Your task to perform on an android device: What's the weather going to be this weekend? Image 0: 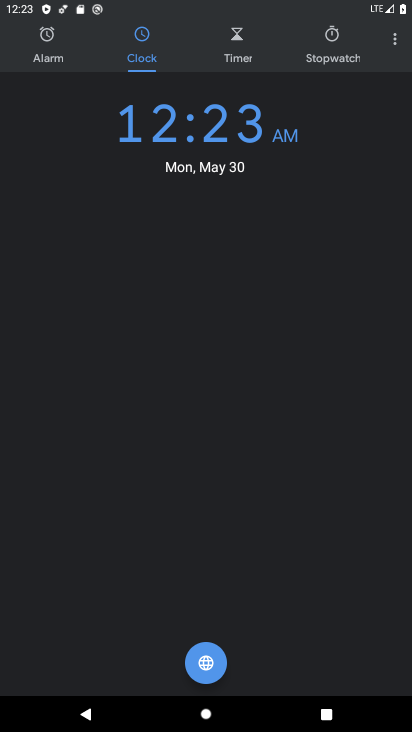
Step 0: press home button
Your task to perform on an android device: What's the weather going to be this weekend? Image 1: 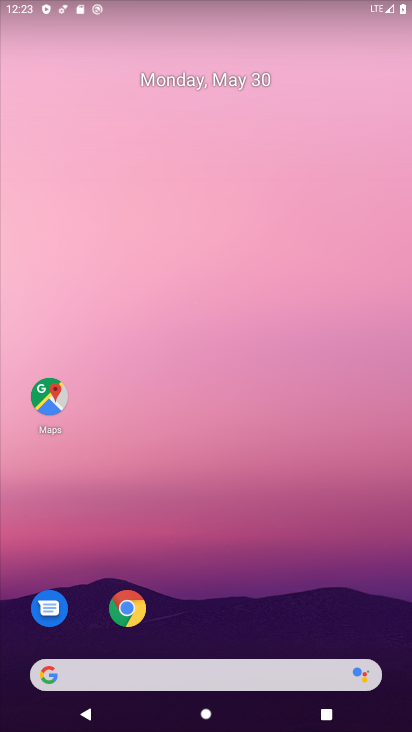
Step 1: click (182, 686)
Your task to perform on an android device: What's the weather going to be this weekend? Image 2: 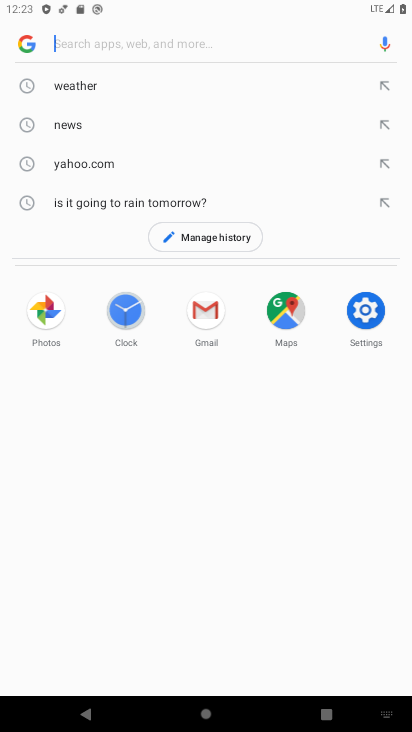
Step 2: click (100, 89)
Your task to perform on an android device: What's the weather going to be this weekend? Image 3: 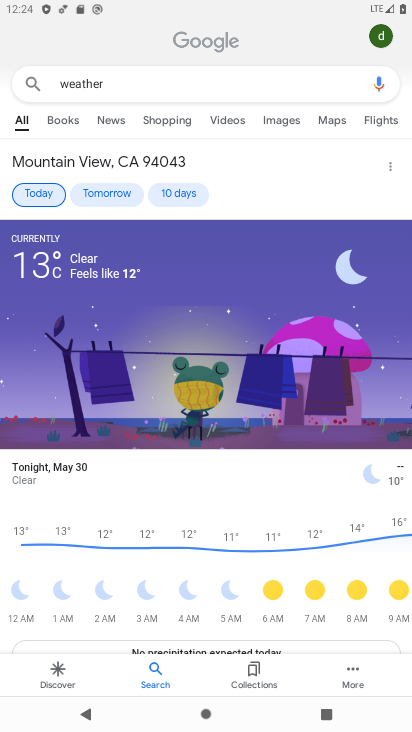
Step 3: click (169, 197)
Your task to perform on an android device: What's the weather going to be this weekend? Image 4: 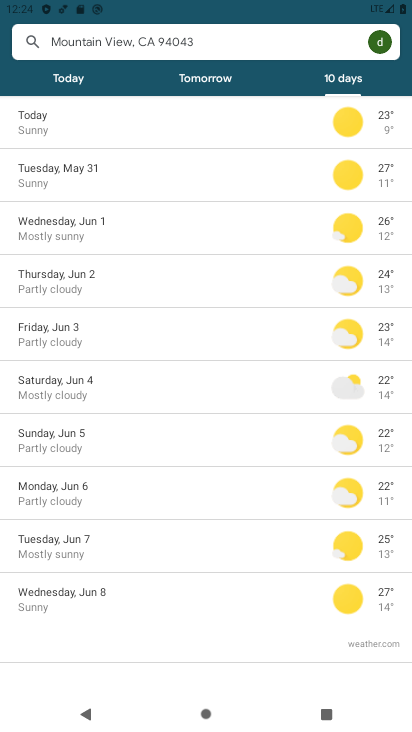
Step 4: task complete